Your task to perform on an android device: Search for dell xps on bestbuy, select the first entry, and add it to the cart. Image 0: 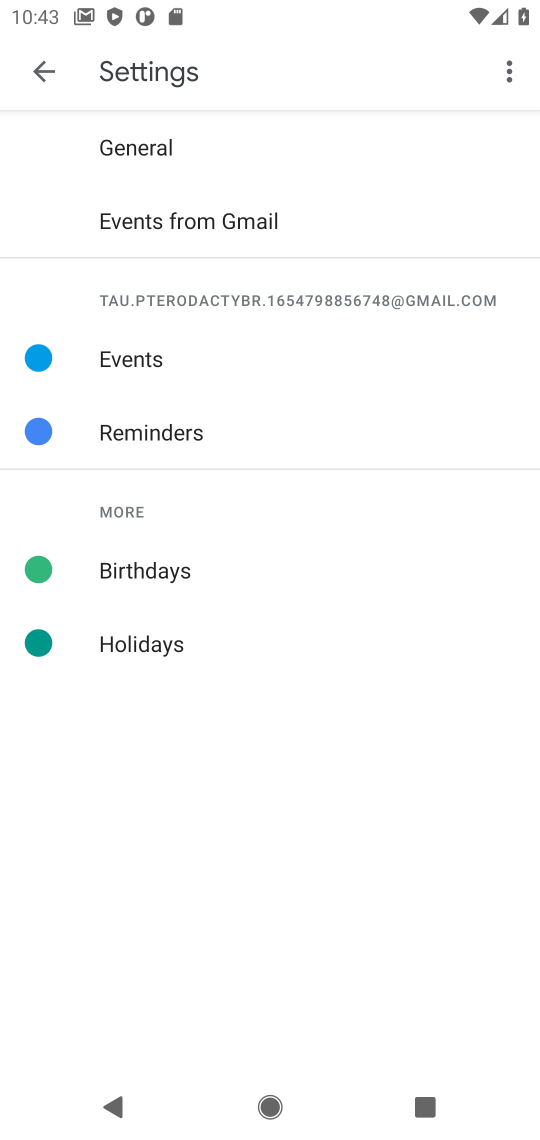
Step 0: press home button
Your task to perform on an android device: Search for dell xps on bestbuy, select the first entry, and add it to the cart. Image 1: 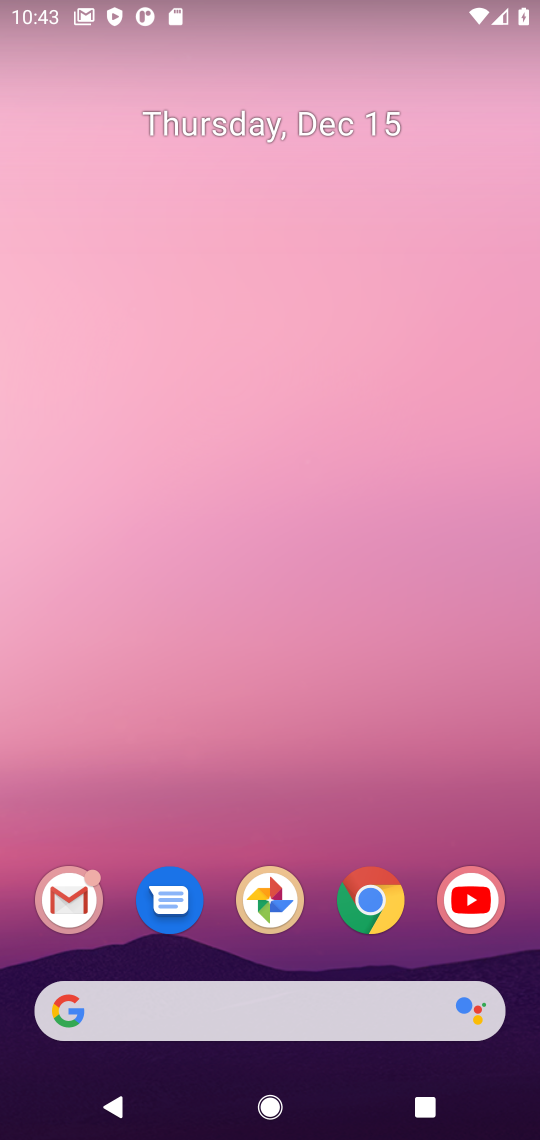
Step 1: click (376, 893)
Your task to perform on an android device: Search for dell xps on bestbuy, select the first entry, and add it to the cart. Image 2: 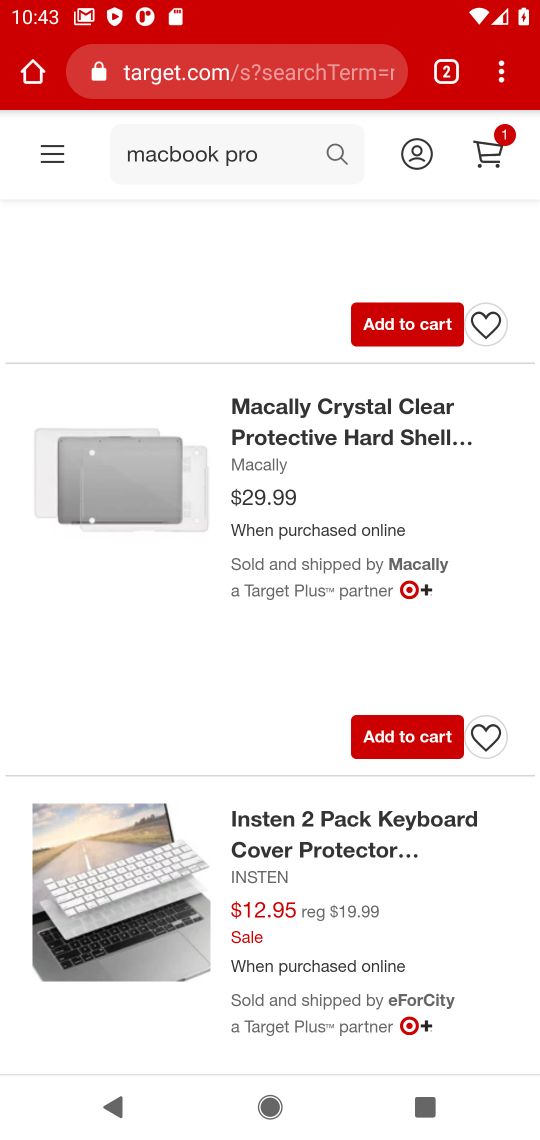
Step 2: click (197, 70)
Your task to perform on an android device: Search for dell xps on bestbuy, select the first entry, and add it to the cart. Image 3: 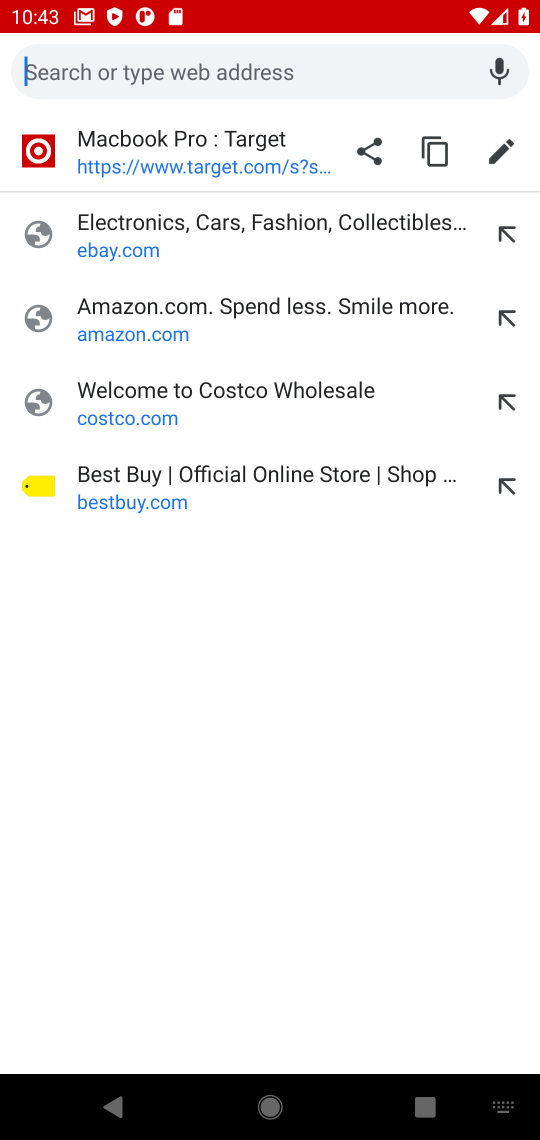
Step 3: type "bestbuy"
Your task to perform on an android device: Search for dell xps on bestbuy, select the first entry, and add it to the cart. Image 4: 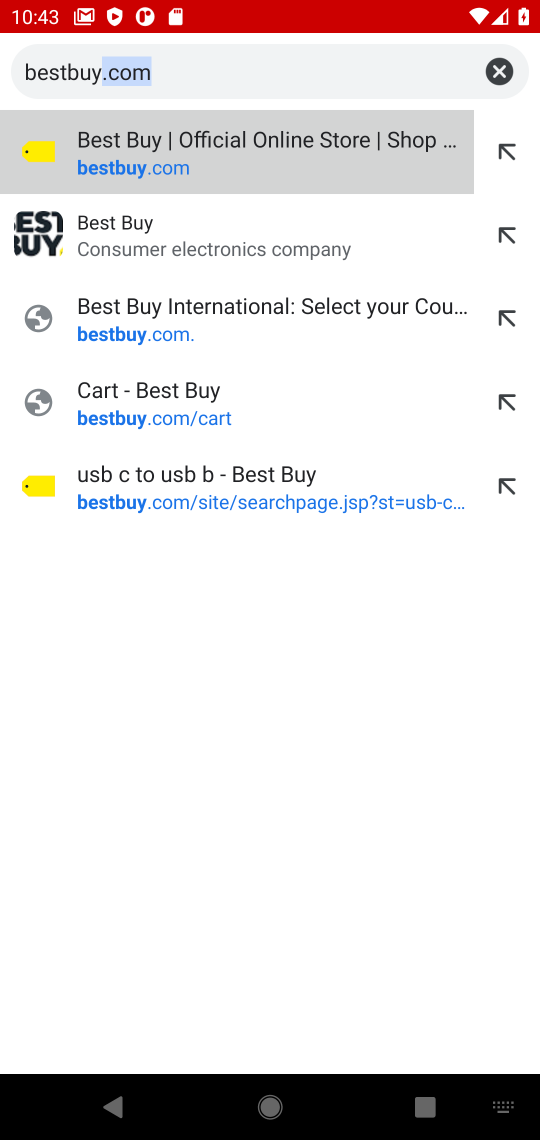
Step 4: click (266, 170)
Your task to perform on an android device: Search for dell xps on bestbuy, select the first entry, and add it to the cart. Image 5: 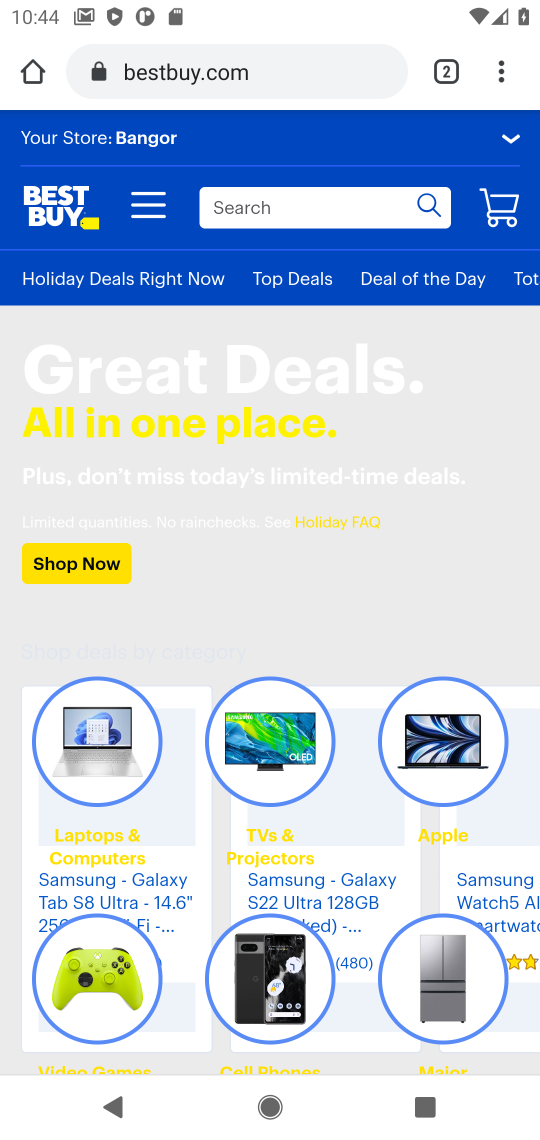
Step 5: click (248, 198)
Your task to perform on an android device: Search for dell xps on bestbuy, select the first entry, and add it to the cart. Image 6: 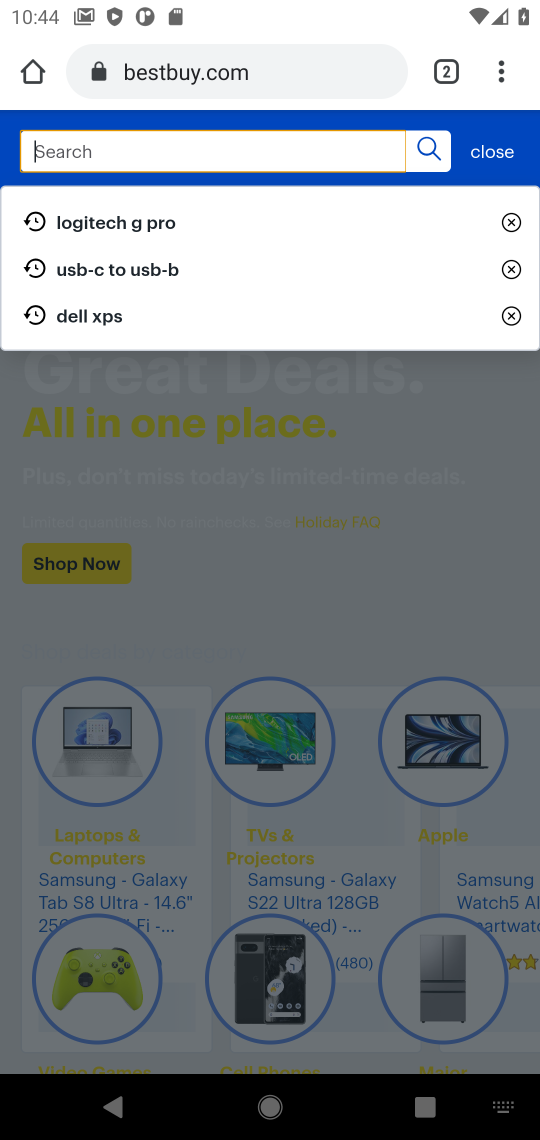
Step 6: type "dell xps"
Your task to perform on an android device: Search for dell xps on bestbuy, select the first entry, and add it to the cart. Image 7: 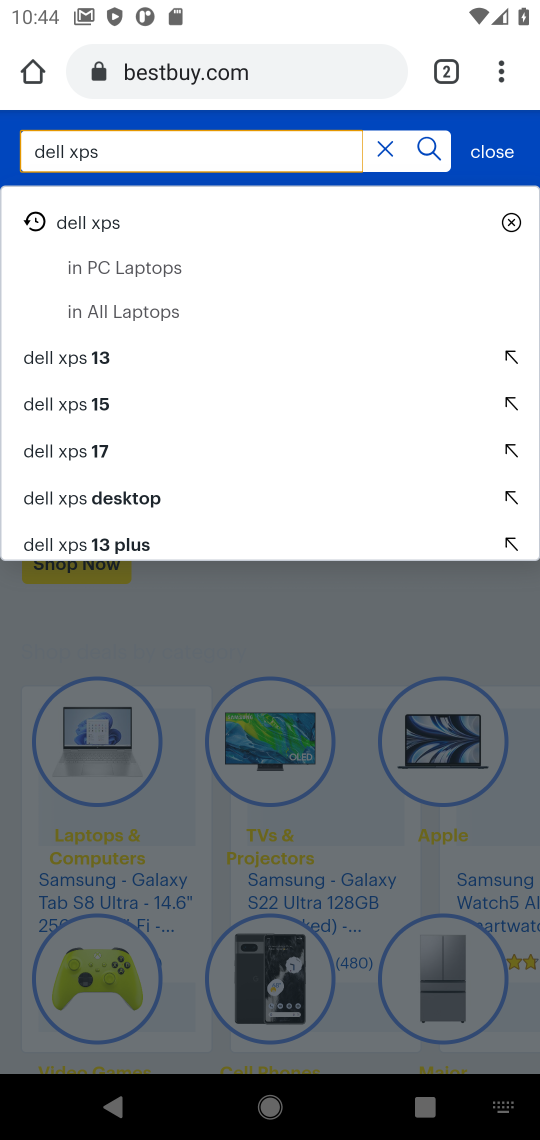
Step 7: press enter
Your task to perform on an android device: Search for dell xps on bestbuy, select the first entry, and add it to the cart. Image 8: 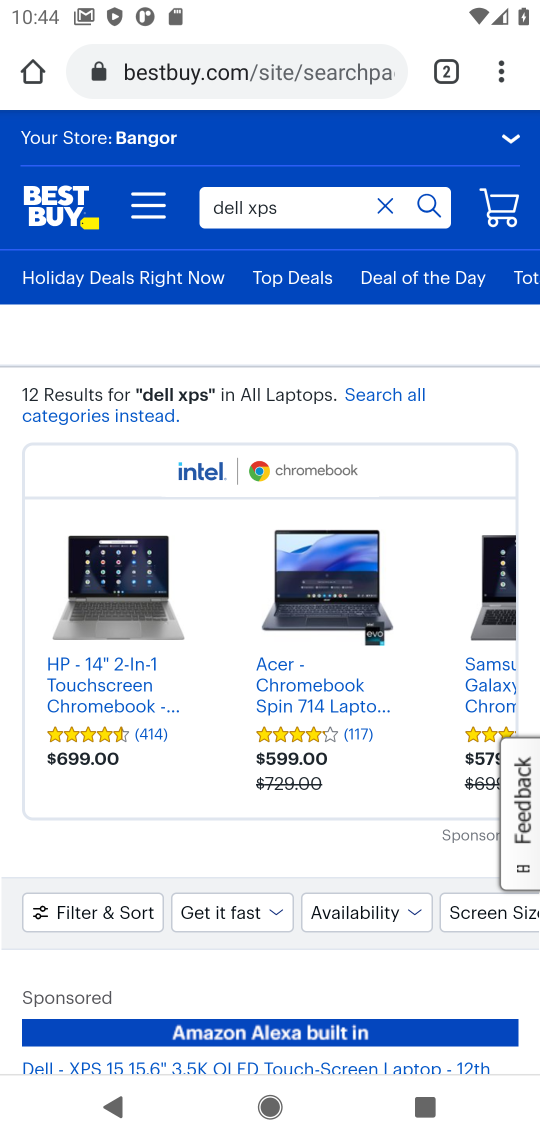
Step 8: drag from (237, 962) to (240, 401)
Your task to perform on an android device: Search for dell xps on bestbuy, select the first entry, and add it to the cart. Image 9: 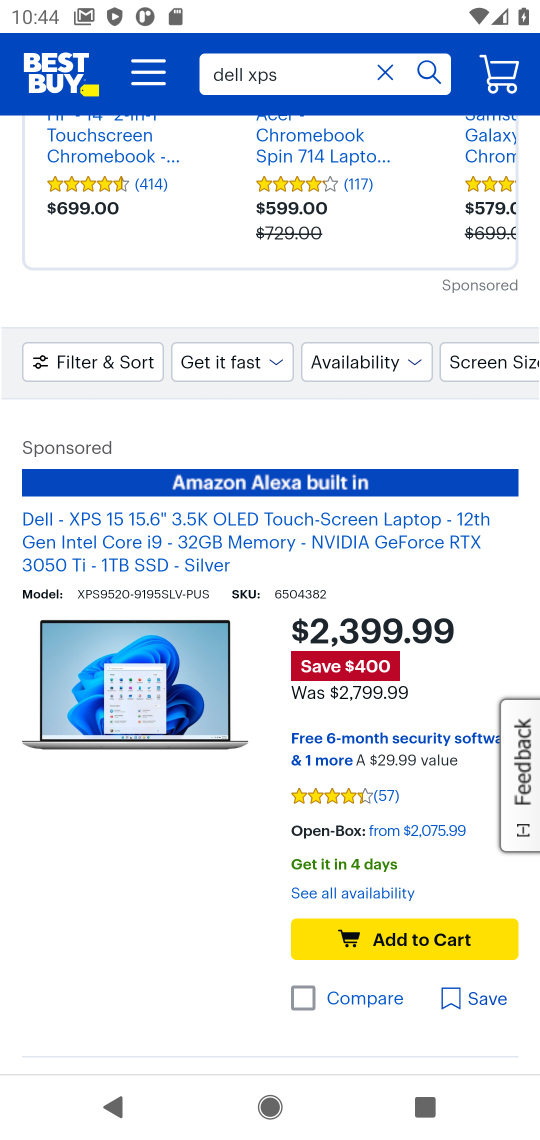
Step 9: click (393, 936)
Your task to perform on an android device: Search for dell xps on bestbuy, select the first entry, and add it to the cart. Image 10: 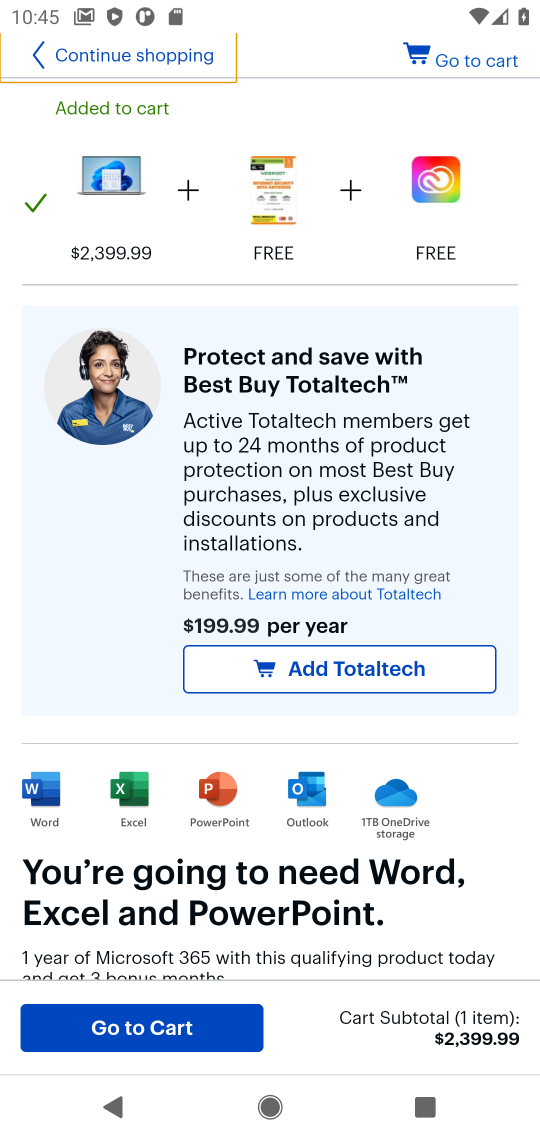
Step 10: click (104, 1039)
Your task to perform on an android device: Search for dell xps on bestbuy, select the first entry, and add it to the cart. Image 11: 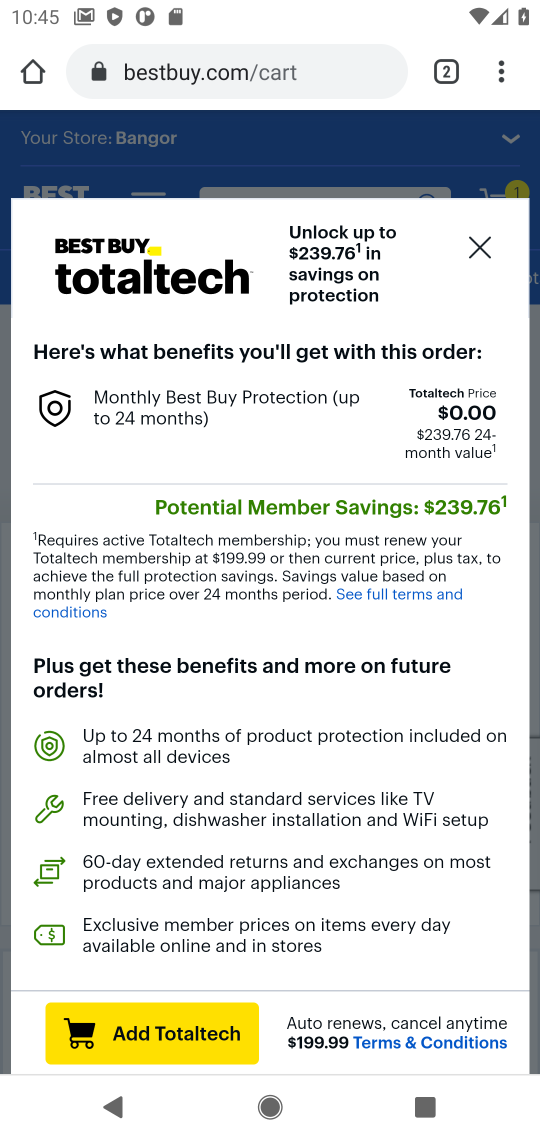
Step 11: click (102, 1049)
Your task to perform on an android device: Search for dell xps on bestbuy, select the first entry, and add it to the cart. Image 12: 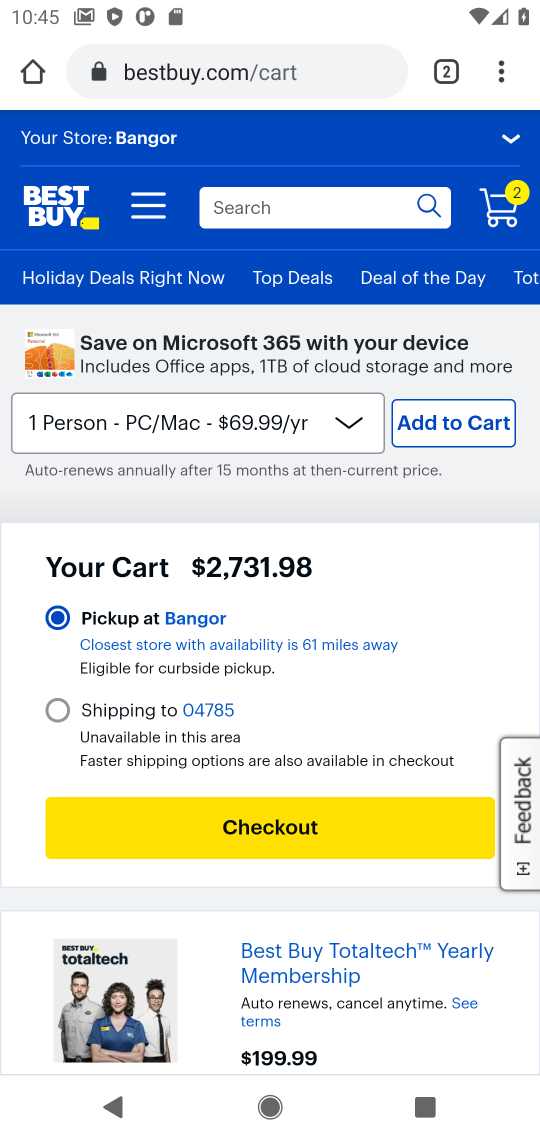
Step 12: task complete